Your task to perform on an android device: check out phone information Image 0: 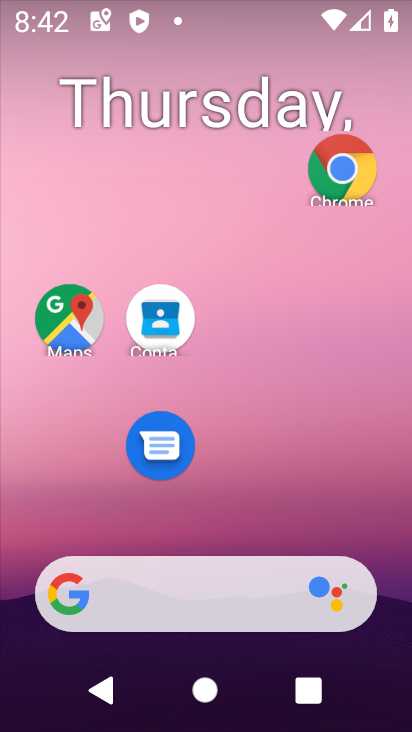
Step 0: drag from (288, 600) to (242, 166)
Your task to perform on an android device: check out phone information Image 1: 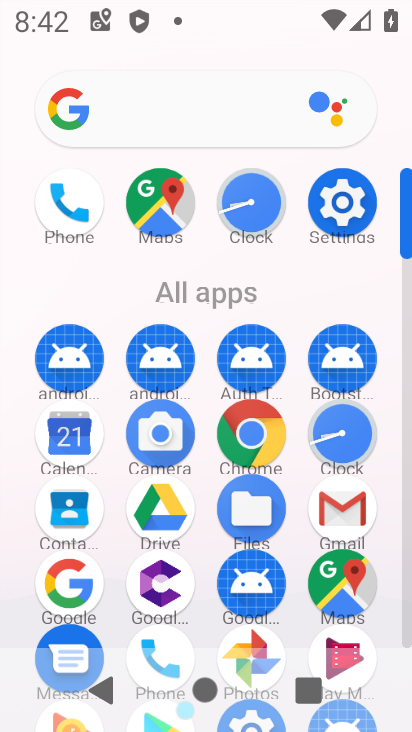
Step 1: click (344, 199)
Your task to perform on an android device: check out phone information Image 2: 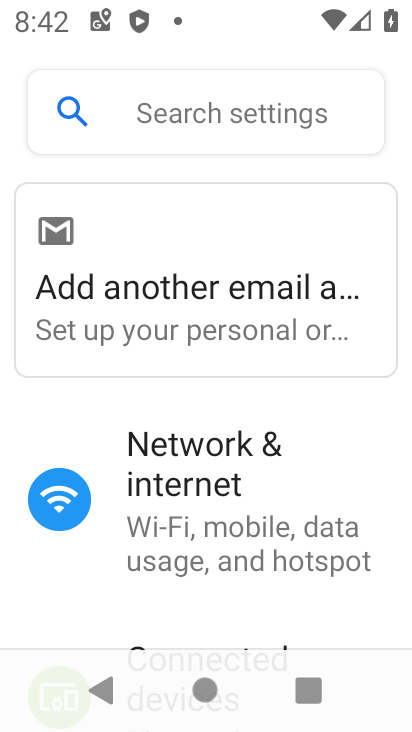
Step 2: click (215, 113)
Your task to perform on an android device: check out phone information Image 3: 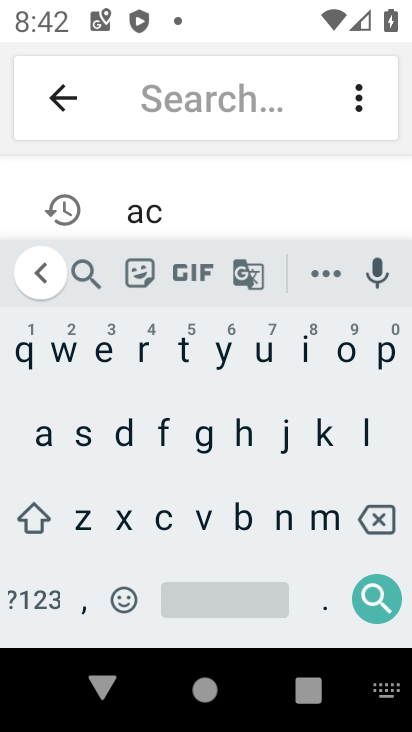
Step 3: click (40, 437)
Your task to perform on an android device: check out phone information Image 4: 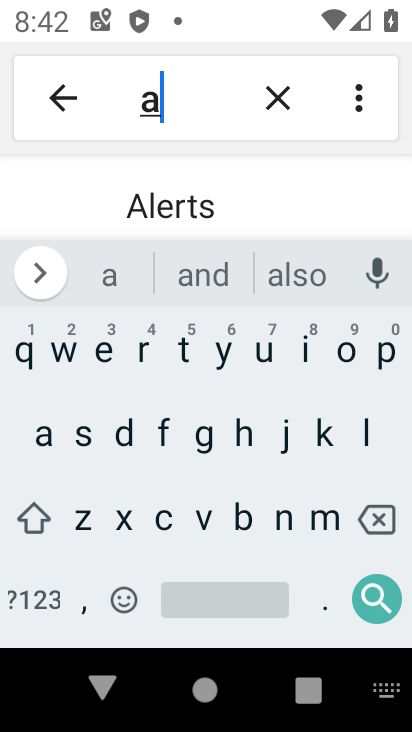
Step 4: click (241, 516)
Your task to perform on an android device: check out phone information Image 5: 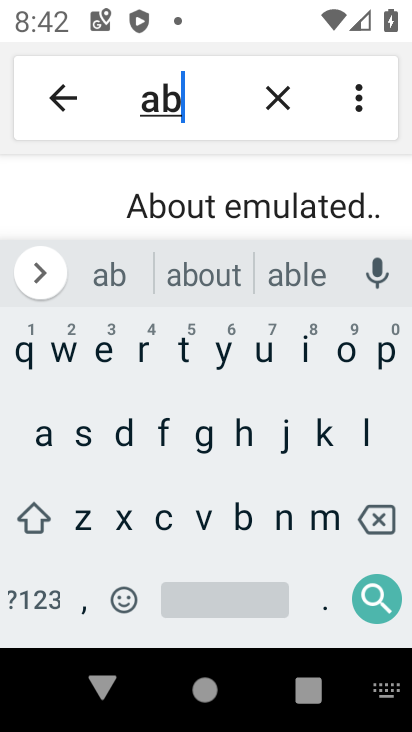
Step 5: click (252, 208)
Your task to perform on an android device: check out phone information Image 6: 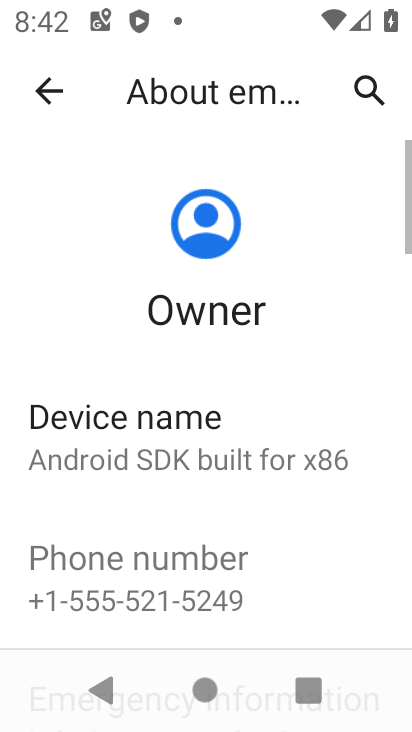
Step 6: click (224, 290)
Your task to perform on an android device: check out phone information Image 7: 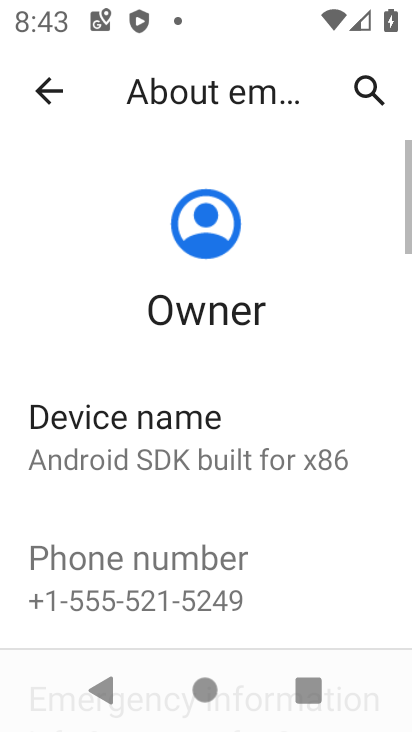
Step 7: task complete